Your task to perform on an android device: Open Android settings Image 0: 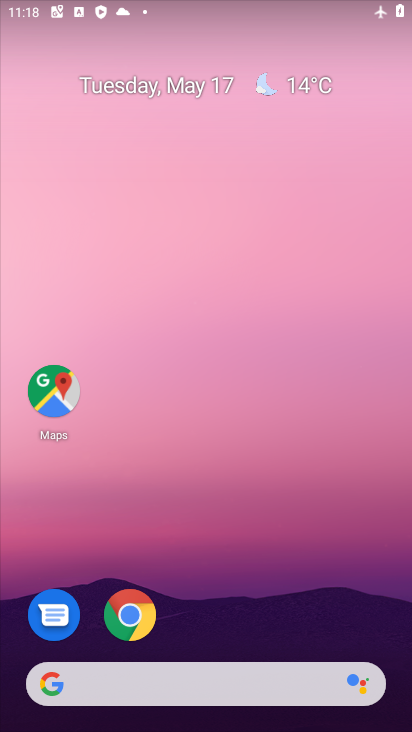
Step 0: drag from (364, 642) to (303, 84)
Your task to perform on an android device: Open Android settings Image 1: 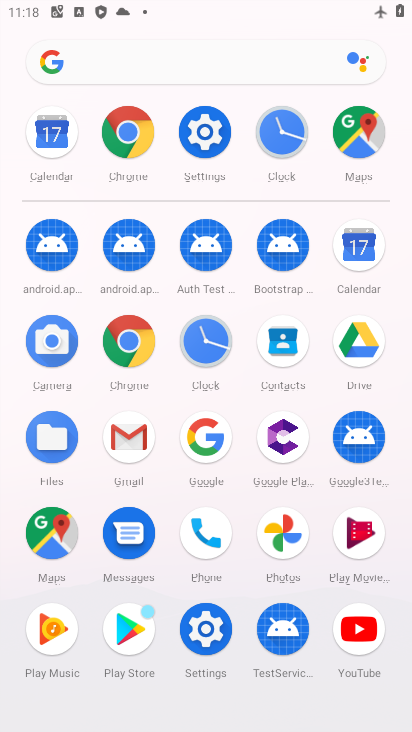
Step 1: click (205, 630)
Your task to perform on an android device: Open Android settings Image 2: 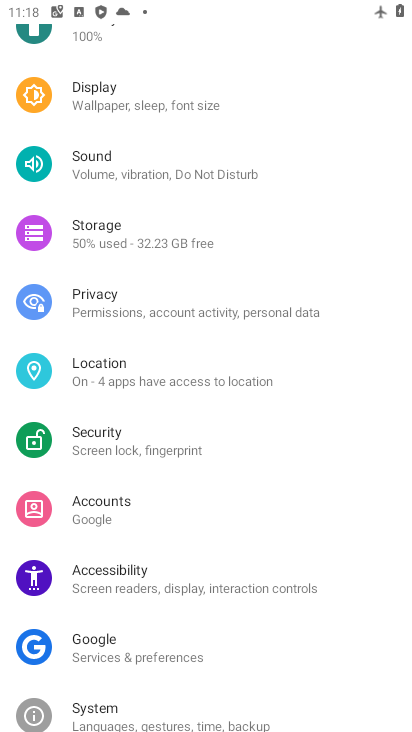
Step 2: drag from (223, 684) to (211, 274)
Your task to perform on an android device: Open Android settings Image 3: 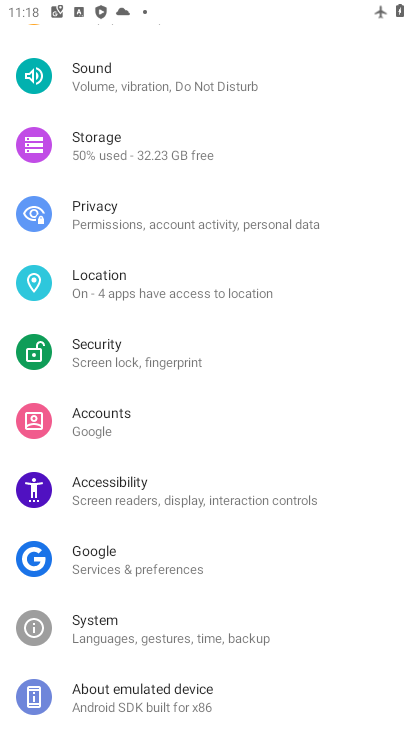
Step 3: click (136, 694)
Your task to perform on an android device: Open Android settings Image 4: 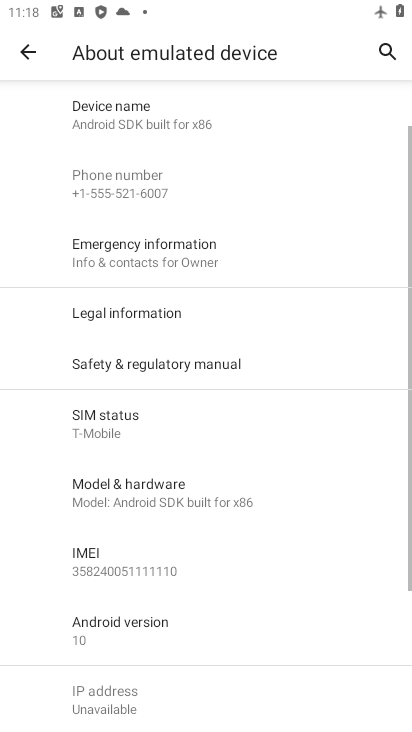
Step 4: task complete